Your task to perform on an android device: Go to Google Image 0: 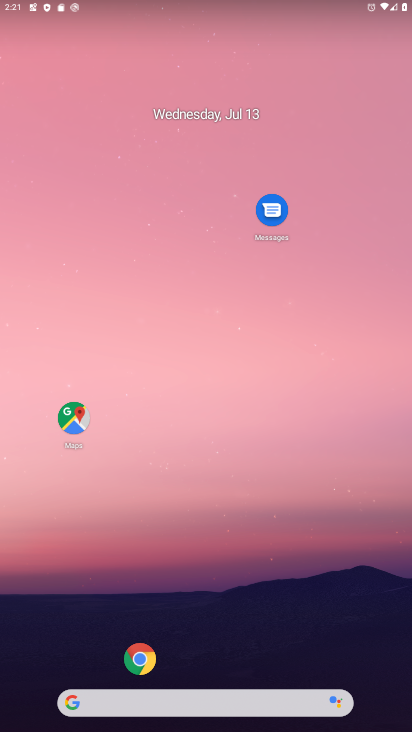
Step 0: click (177, 704)
Your task to perform on an android device: Go to Google Image 1: 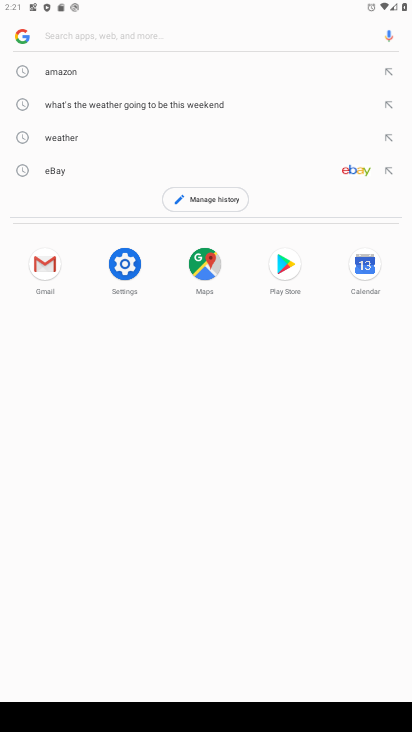
Step 1: task complete